Your task to perform on an android device: turn off javascript in the chrome app Image 0: 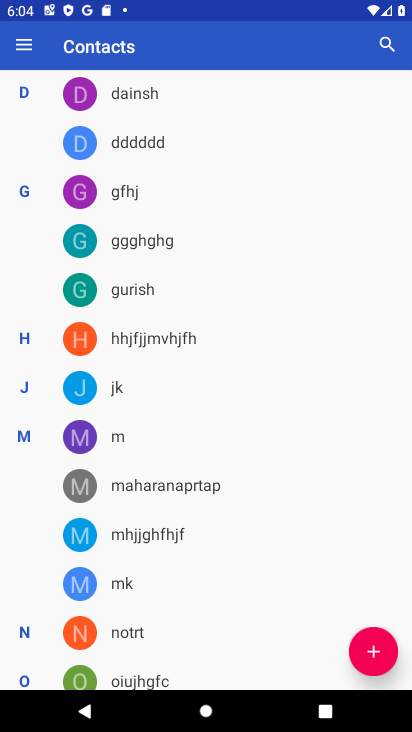
Step 0: press home button
Your task to perform on an android device: turn off javascript in the chrome app Image 1: 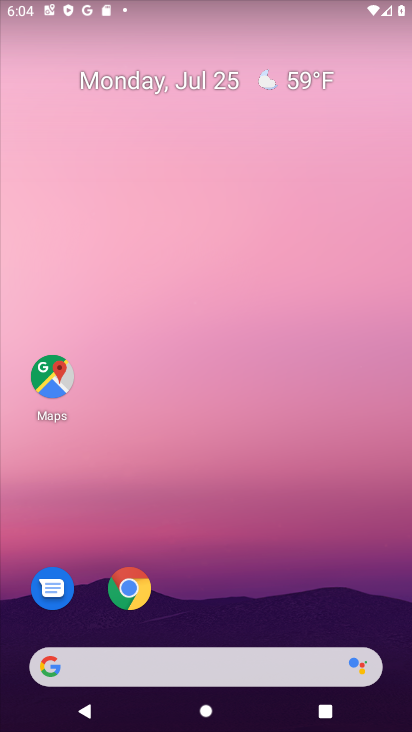
Step 1: click (136, 590)
Your task to perform on an android device: turn off javascript in the chrome app Image 2: 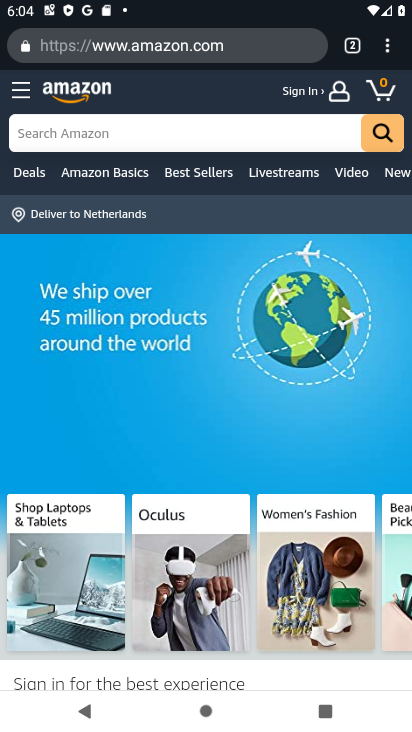
Step 2: click (399, 55)
Your task to perform on an android device: turn off javascript in the chrome app Image 3: 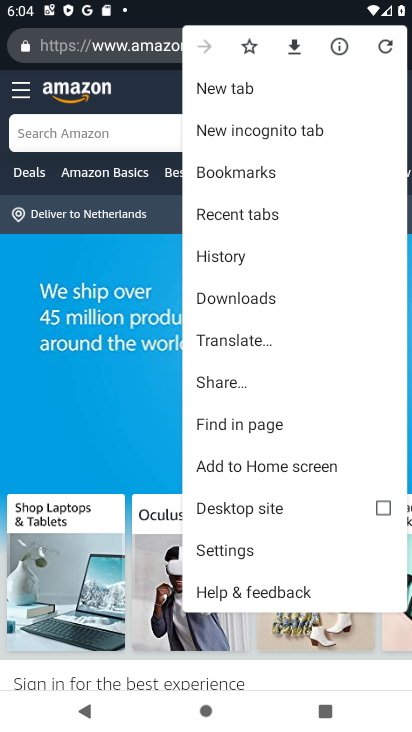
Step 3: click (242, 92)
Your task to perform on an android device: turn off javascript in the chrome app Image 4: 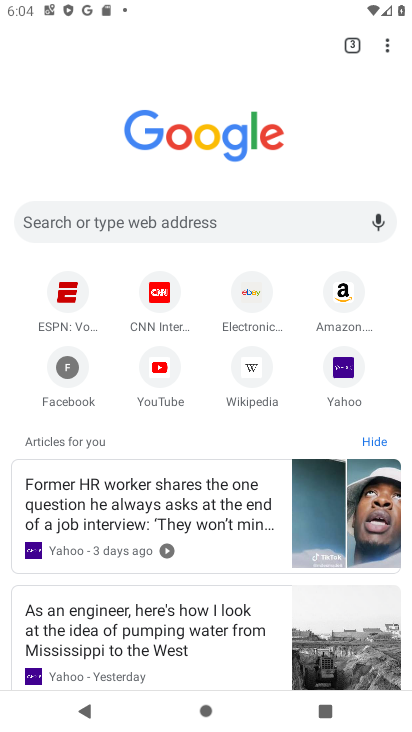
Step 4: click (395, 47)
Your task to perform on an android device: turn off javascript in the chrome app Image 5: 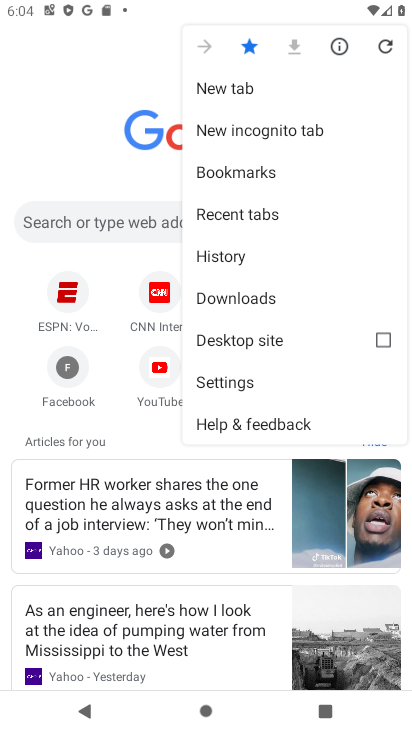
Step 5: click (225, 382)
Your task to perform on an android device: turn off javascript in the chrome app Image 6: 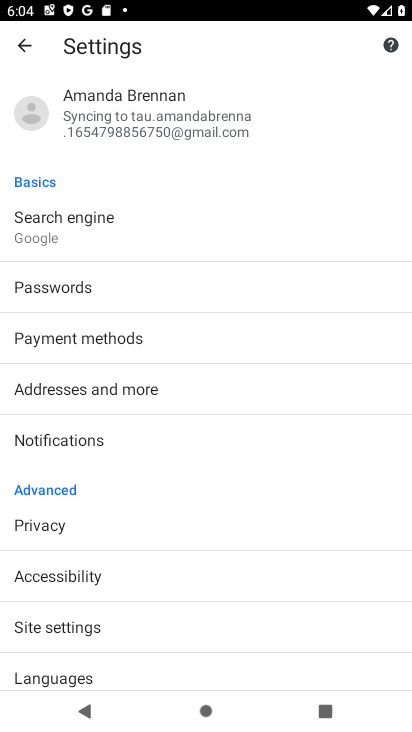
Step 6: task complete